Your task to perform on an android device: Do I have any events today? Image 0: 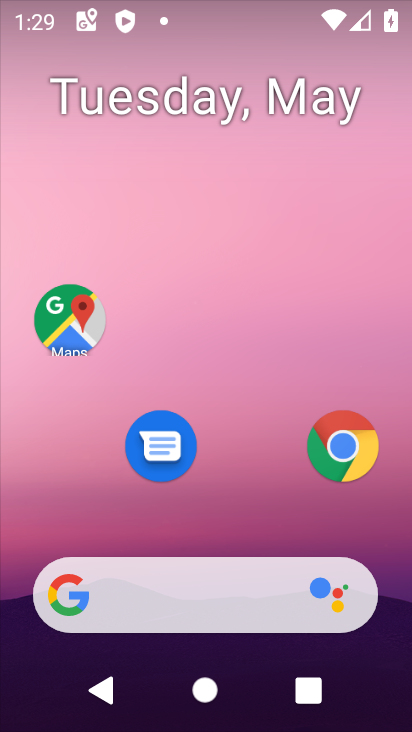
Step 0: drag from (217, 540) to (116, 3)
Your task to perform on an android device: Do I have any events today? Image 1: 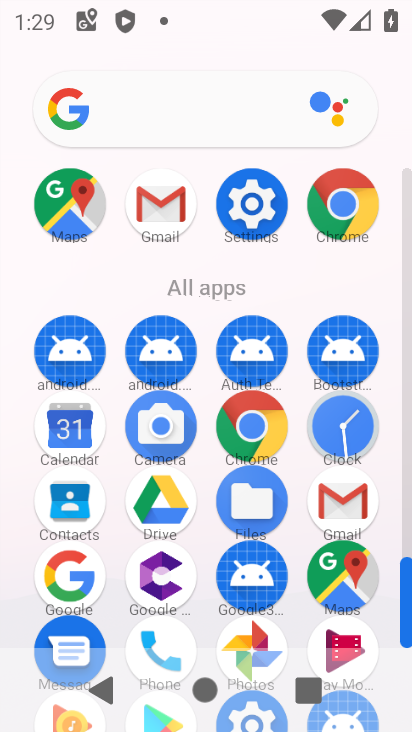
Step 1: click (76, 426)
Your task to perform on an android device: Do I have any events today? Image 2: 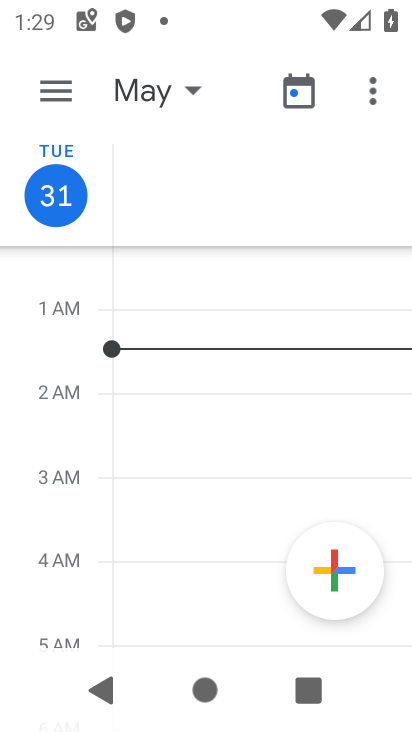
Step 2: click (60, 181)
Your task to perform on an android device: Do I have any events today? Image 3: 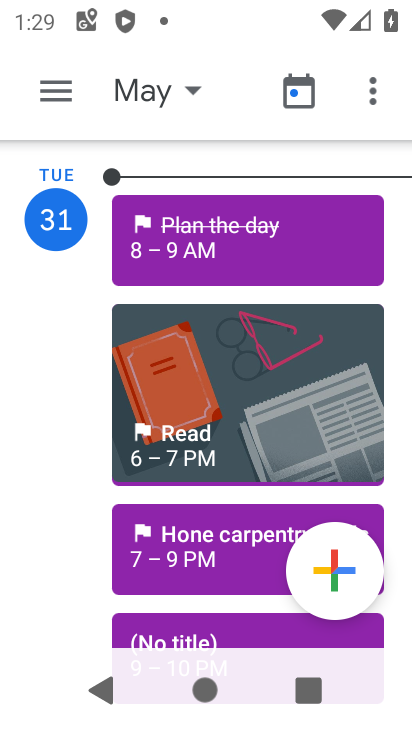
Step 3: task complete